Your task to perform on an android device: Open my contact list Image 0: 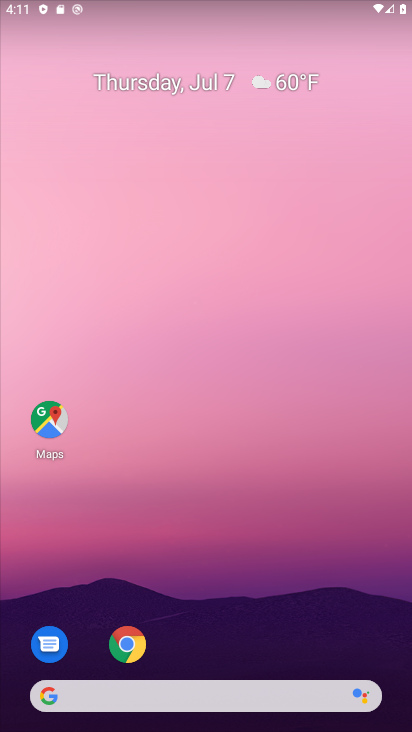
Step 0: drag from (273, 604) to (182, 38)
Your task to perform on an android device: Open my contact list Image 1: 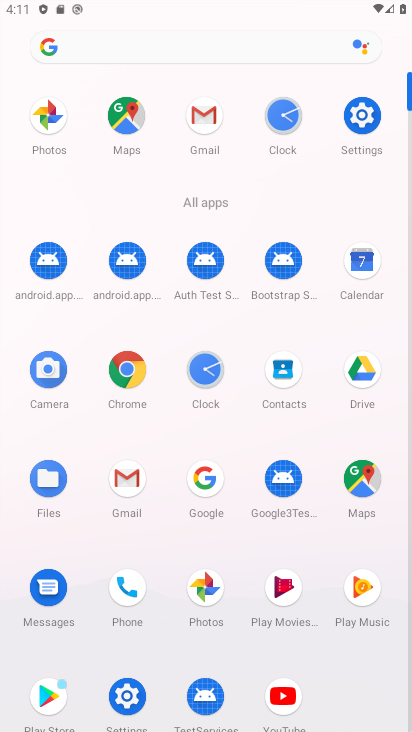
Step 1: click (281, 372)
Your task to perform on an android device: Open my contact list Image 2: 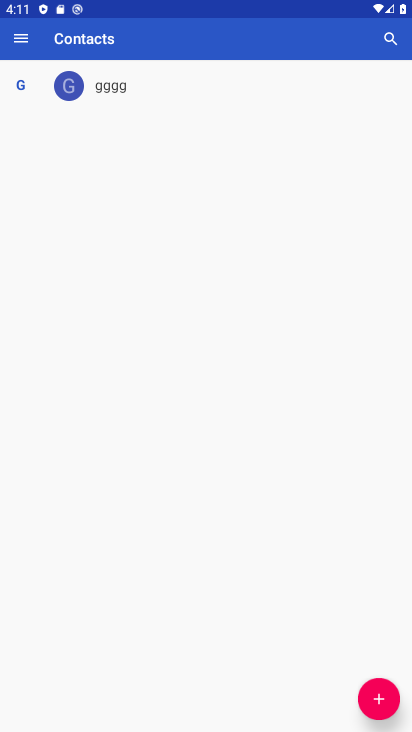
Step 2: task complete